Your task to perform on an android device: turn on bluetooth scan Image 0: 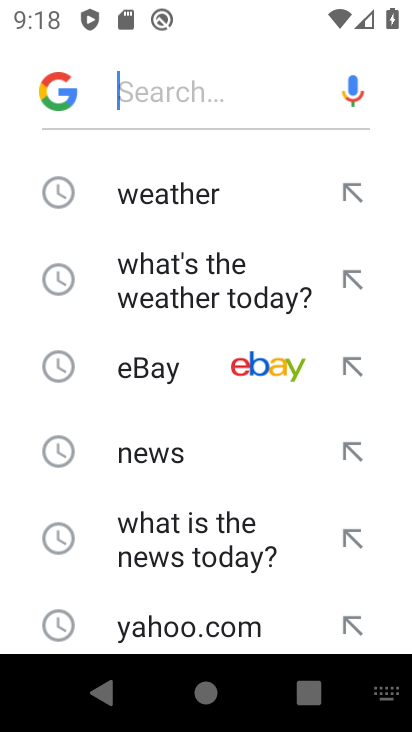
Step 0: press home button
Your task to perform on an android device: turn on bluetooth scan Image 1: 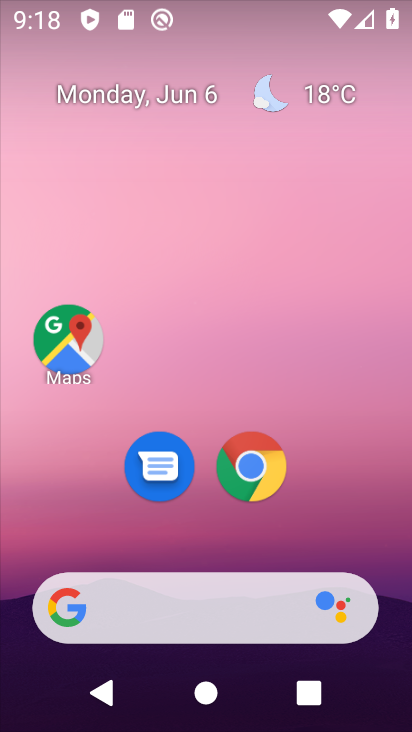
Step 1: drag from (190, 547) to (139, 94)
Your task to perform on an android device: turn on bluetooth scan Image 2: 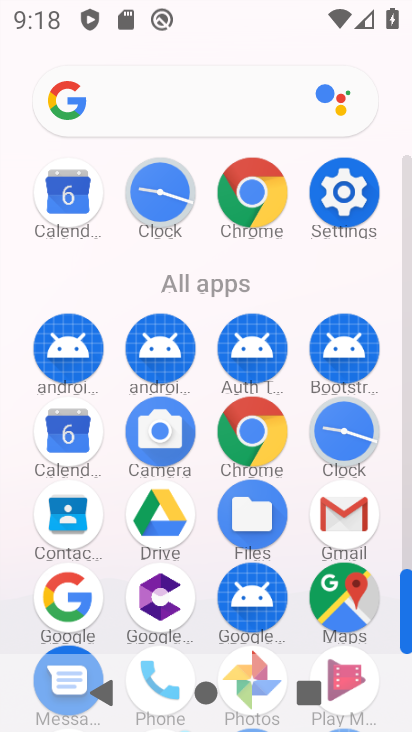
Step 2: click (339, 198)
Your task to perform on an android device: turn on bluetooth scan Image 3: 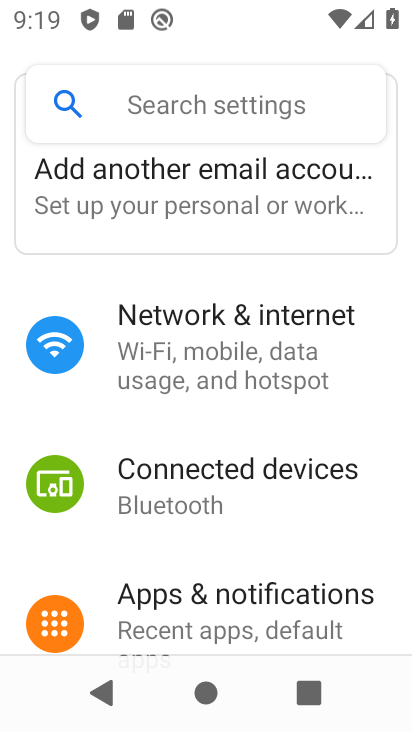
Step 3: drag from (221, 530) to (212, 187)
Your task to perform on an android device: turn on bluetooth scan Image 4: 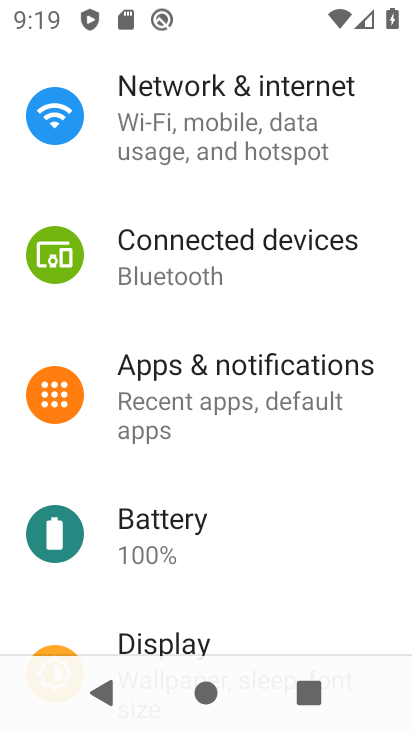
Step 4: drag from (215, 519) to (217, 207)
Your task to perform on an android device: turn on bluetooth scan Image 5: 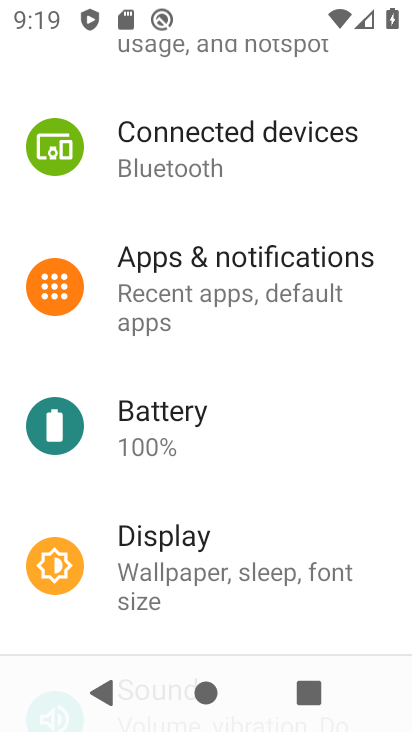
Step 5: drag from (232, 570) to (232, 415)
Your task to perform on an android device: turn on bluetooth scan Image 6: 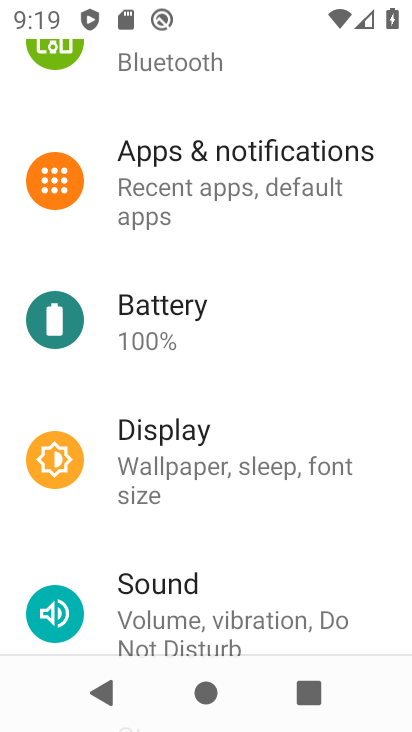
Step 6: drag from (227, 550) to (218, 368)
Your task to perform on an android device: turn on bluetooth scan Image 7: 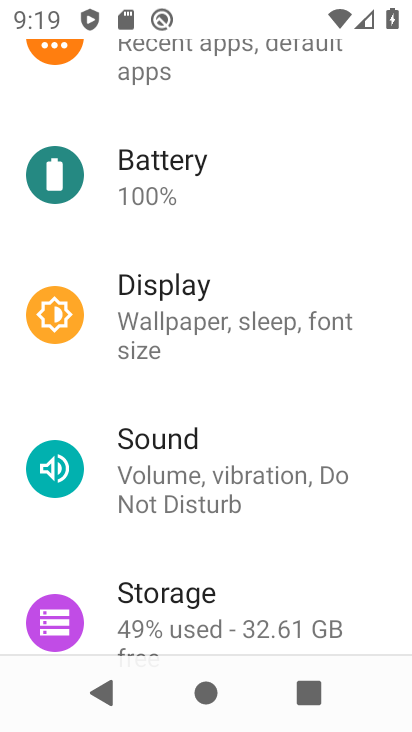
Step 7: drag from (216, 534) to (217, 220)
Your task to perform on an android device: turn on bluetooth scan Image 8: 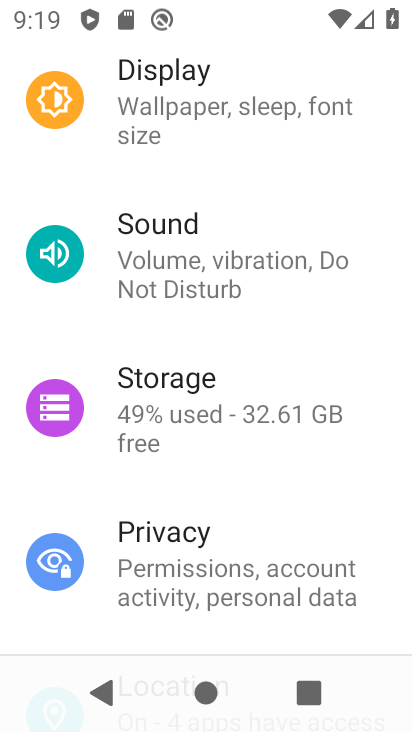
Step 8: drag from (227, 518) to (237, 179)
Your task to perform on an android device: turn on bluetooth scan Image 9: 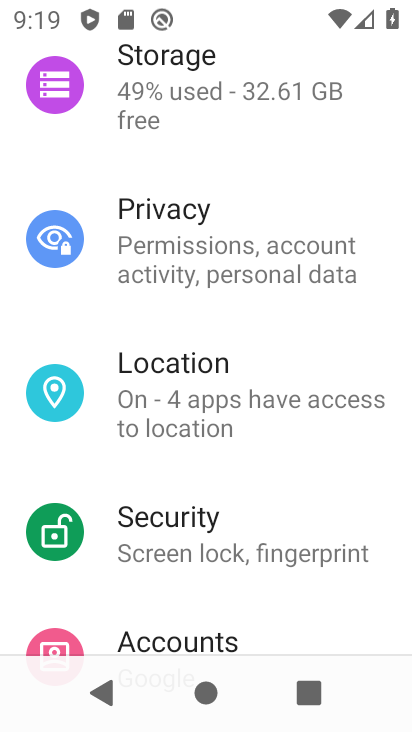
Step 9: drag from (257, 566) to (267, 229)
Your task to perform on an android device: turn on bluetooth scan Image 10: 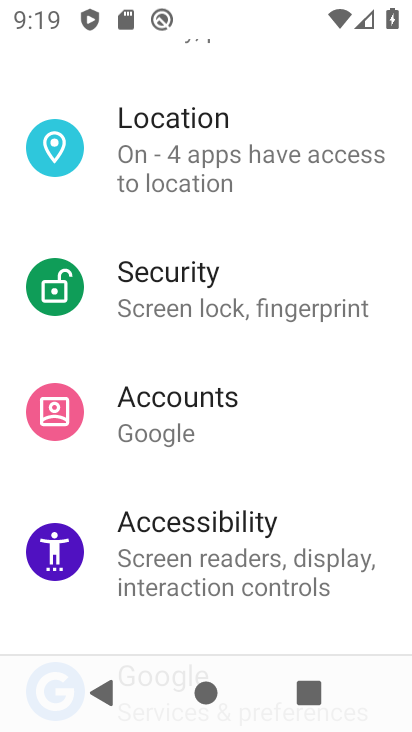
Step 10: click (190, 180)
Your task to perform on an android device: turn on bluetooth scan Image 11: 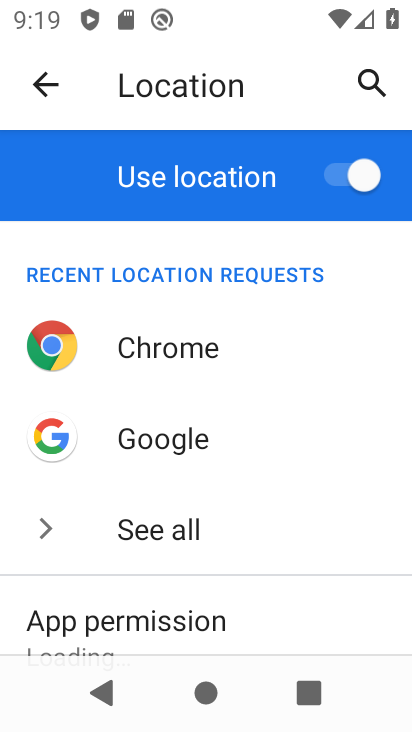
Step 11: drag from (248, 510) to (267, 244)
Your task to perform on an android device: turn on bluetooth scan Image 12: 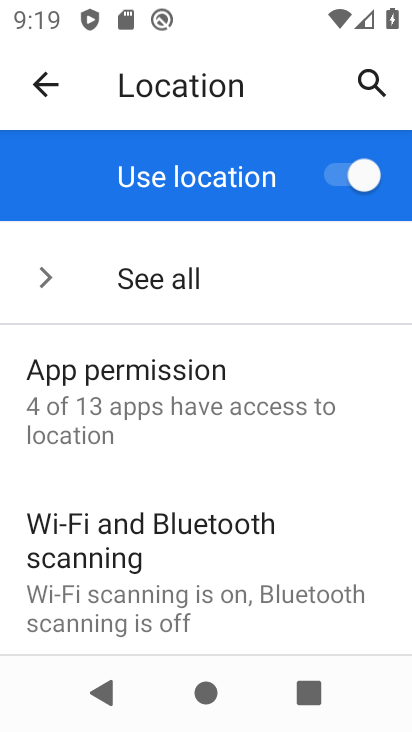
Step 12: click (157, 611)
Your task to perform on an android device: turn on bluetooth scan Image 13: 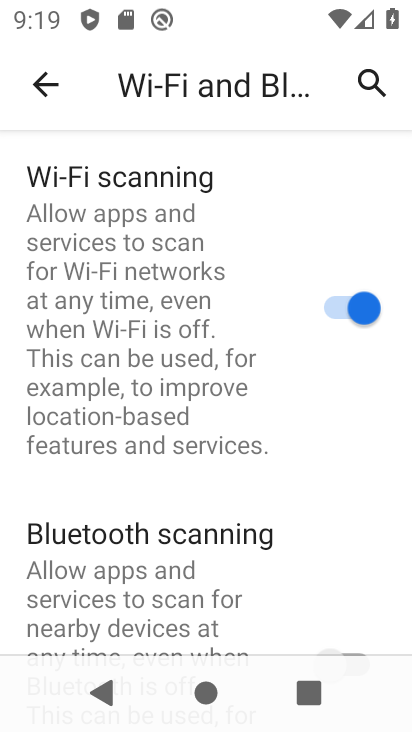
Step 13: drag from (187, 603) to (231, 367)
Your task to perform on an android device: turn on bluetooth scan Image 14: 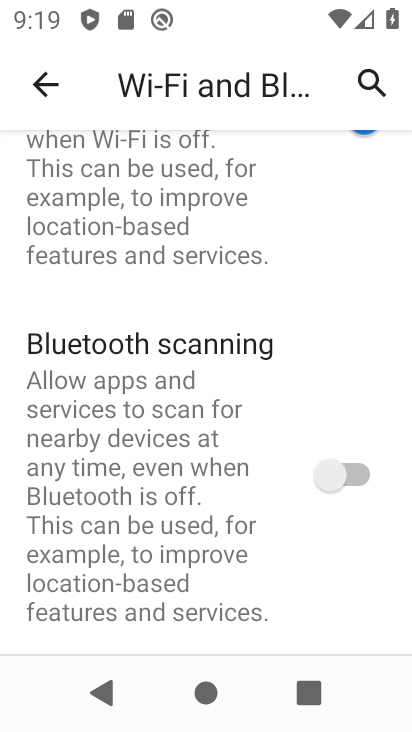
Step 14: click (350, 483)
Your task to perform on an android device: turn on bluetooth scan Image 15: 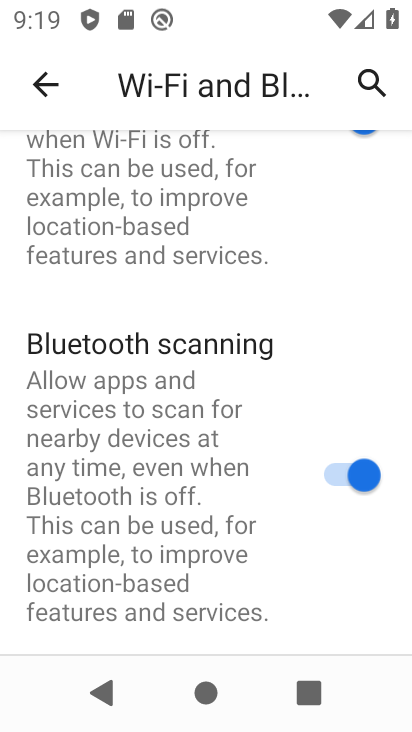
Step 15: task complete